Your task to perform on an android device: Check the news Image 0: 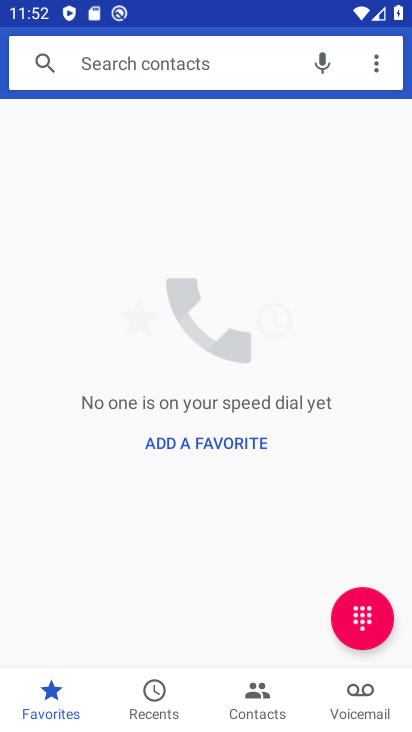
Step 0: press home button
Your task to perform on an android device: Check the news Image 1: 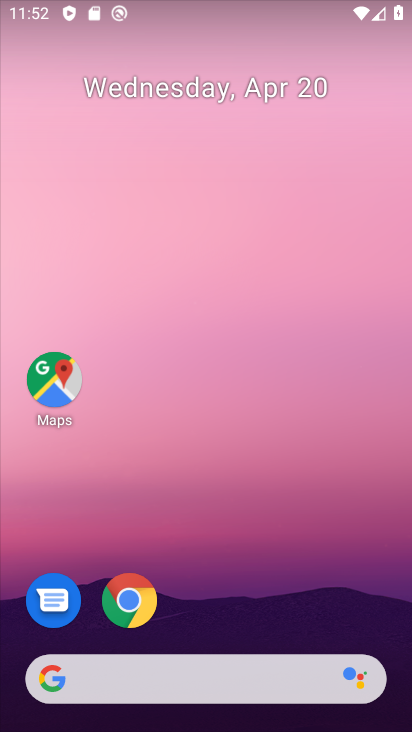
Step 1: task complete